Your task to perform on an android device: Set the phone to "Do not disturb". Image 0: 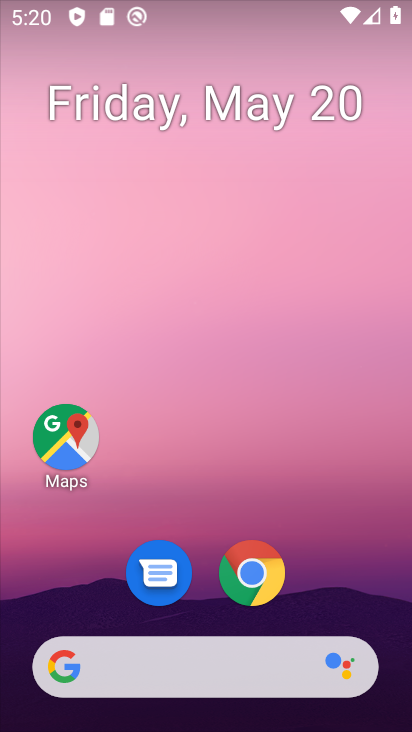
Step 0: drag from (317, 518) to (188, 13)
Your task to perform on an android device: Set the phone to "Do not disturb". Image 1: 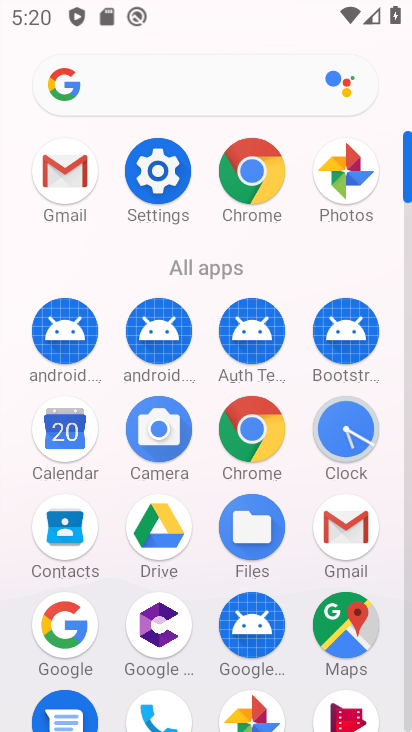
Step 1: click (171, 167)
Your task to perform on an android device: Set the phone to "Do not disturb". Image 2: 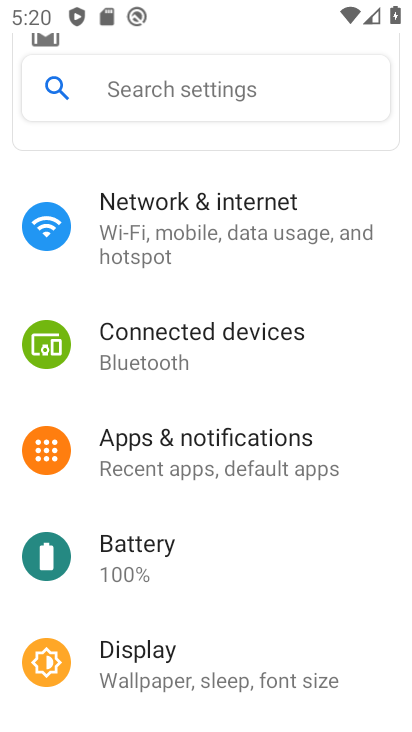
Step 2: drag from (264, 603) to (211, 205)
Your task to perform on an android device: Set the phone to "Do not disturb". Image 3: 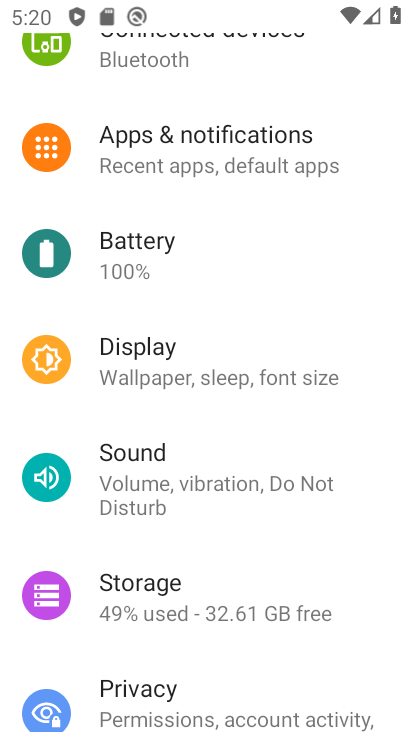
Step 3: click (192, 480)
Your task to perform on an android device: Set the phone to "Do not disturb". Image 4: 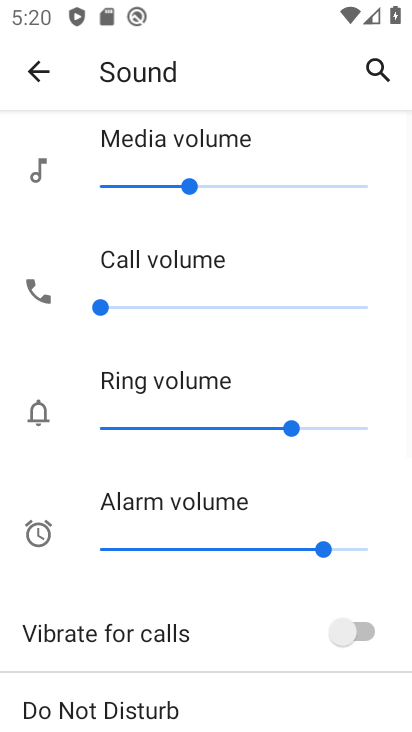
Step 4: click (206, 705)
Your task to perform on an android device: Set the phone to "Do not disturb". Image 5: 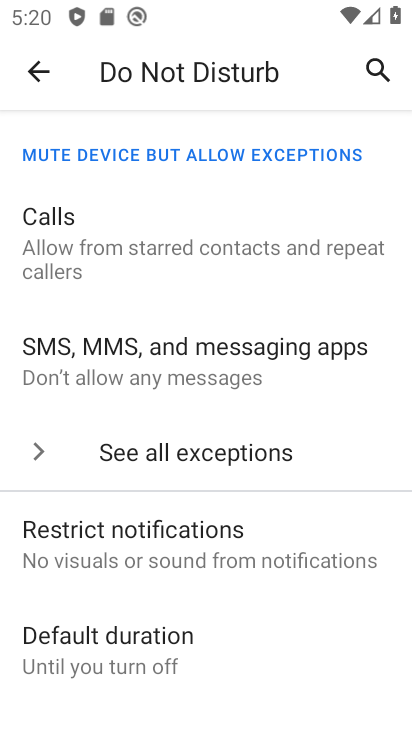
Step 5: drag from (251, 620) to (235, 139)
Your task to perform on an android device: Set the phone to "Do not disturb". Image 6: 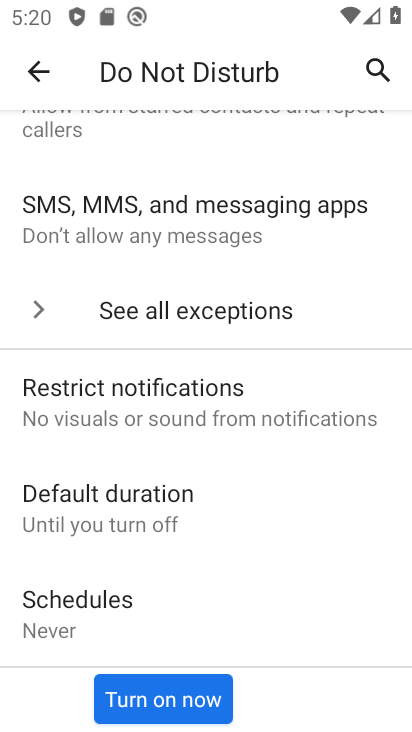
Step 6: click (129, 687)
Your task to perform on an android device: Set the phone to "Do not disturb". Image 7: 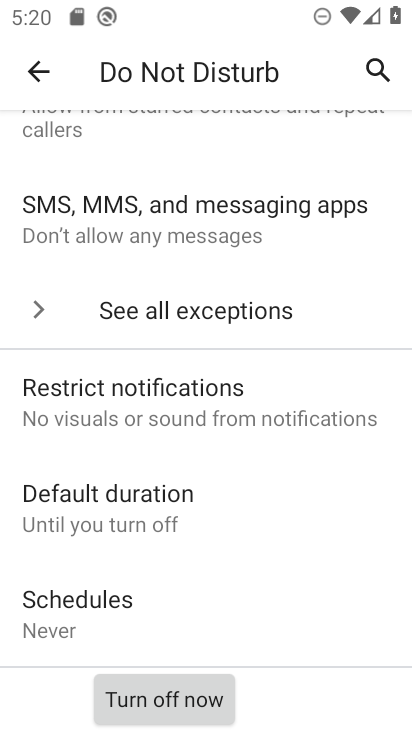
Step 7: task complete